Your task to perform on an android device: What's the weather going to be tomorrow? Image 0: 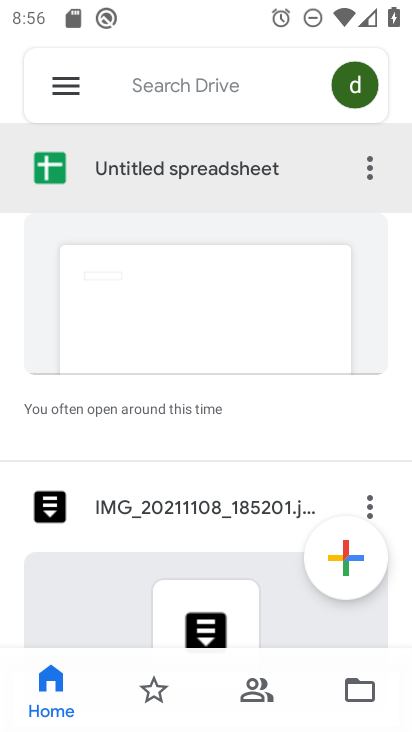
Step 0: press home button
Your task to perform on an android device: What's the weather going to be tomorrow? Image 1: 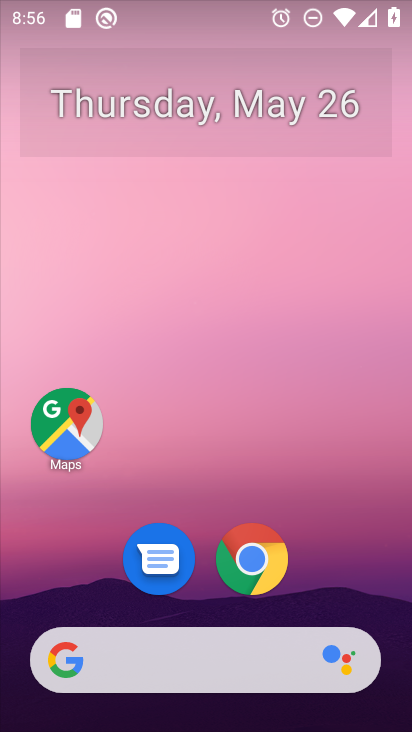
Step 1: drag from (320, 575) to (322, 84)
Your task to perform on an android device: What's the weather going to be tomorrow? Image 2: 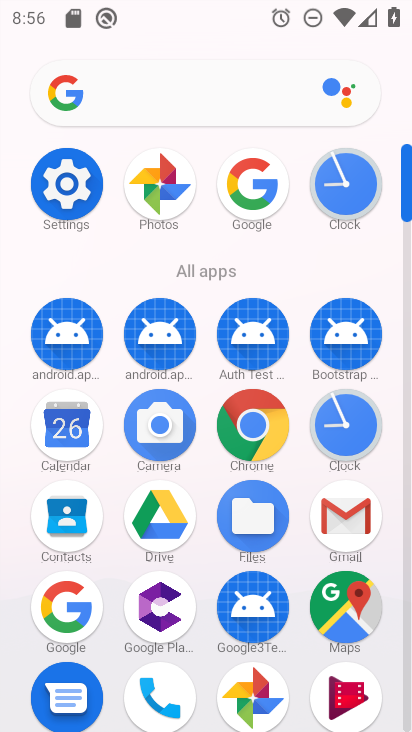
Step 2: click (247, 183)
Your task to perform on an android device: What's the weather going to be tomorrow? Image 3: 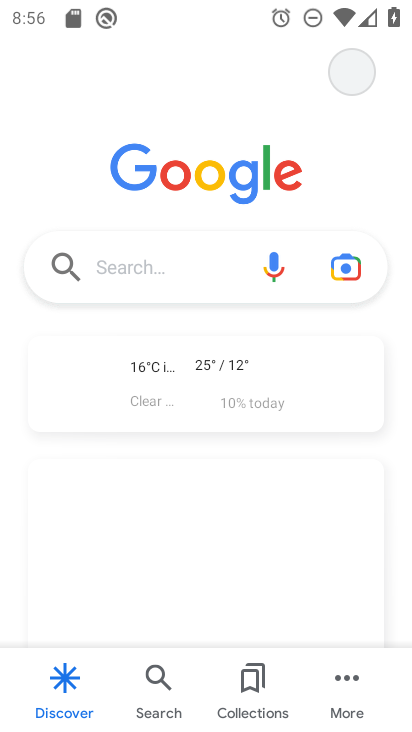
Step 3: click (132, 265)
Your task to perform on an android device: What's the weather going to be tomorrow? Image 4: 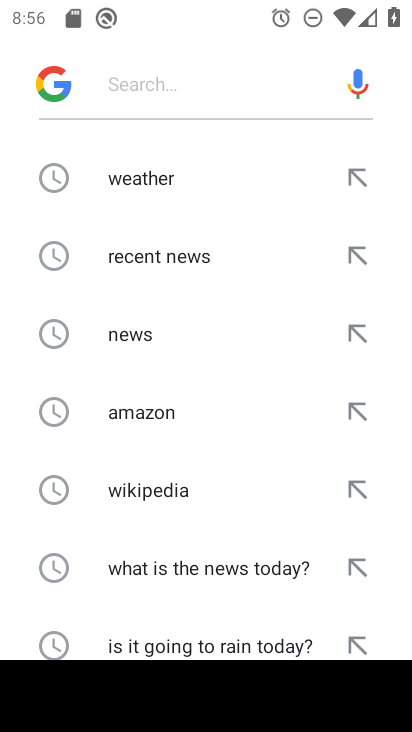
Step 4: drag from (192, 563) to (196, 216)
Your task to perform on an android device: What's the weather going to be tomorrow? Image 5: 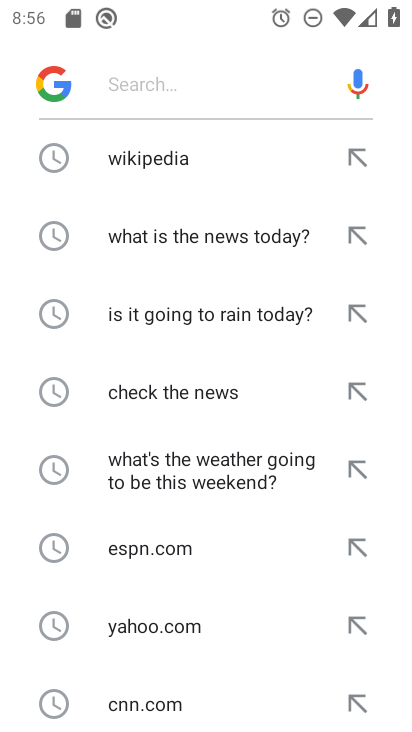
Step 5: drag from (249, 619) to (263, 280)
Your task to perform on an android device: What's the weather going to be tomorrow? Image 6: 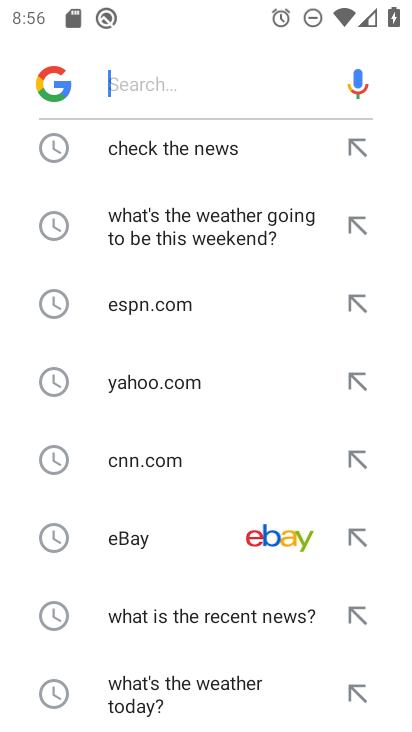
Step 6: type "whats the weather going to be tomorrow"
Your task to perform on an android device: What's the weather going to be tomorrow? Image 7: 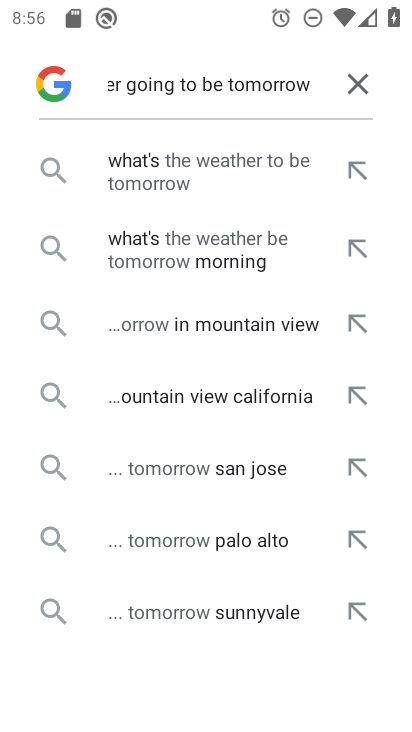
Step 7: click (193, 178)
Your task to perform on an android device: What's the weather going to be tomorrow? Image 8: 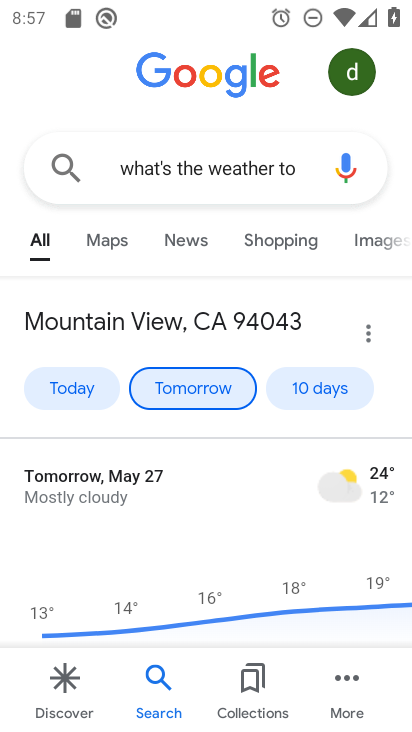
Step 8: task complete